Your task to perform on an android device: install app "Gboard" Image 0: 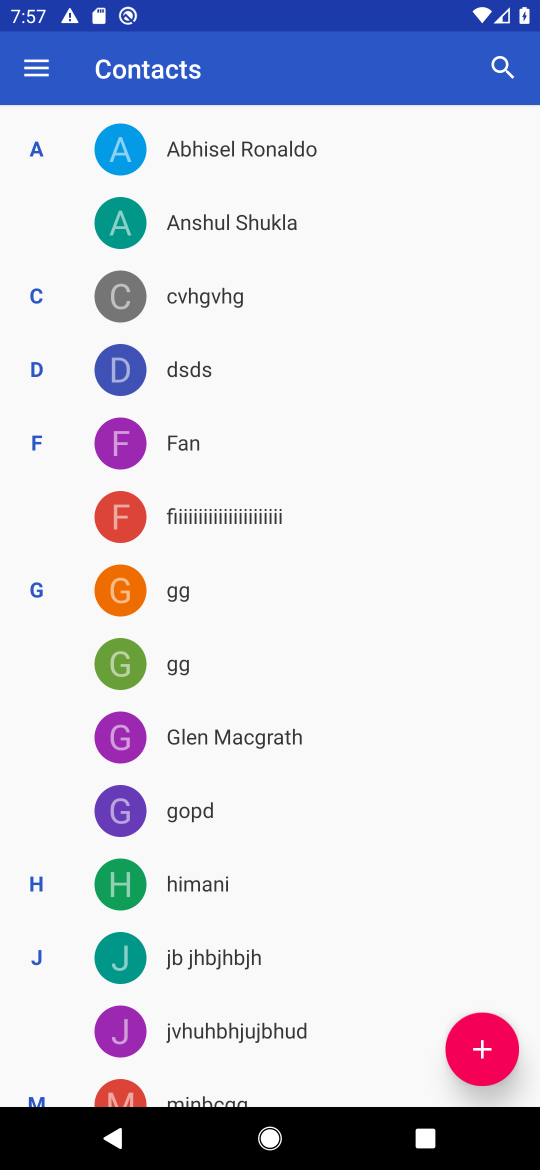
Step 0: press home button
Your task to perform on an android device: install app "Gboard" Image 1: 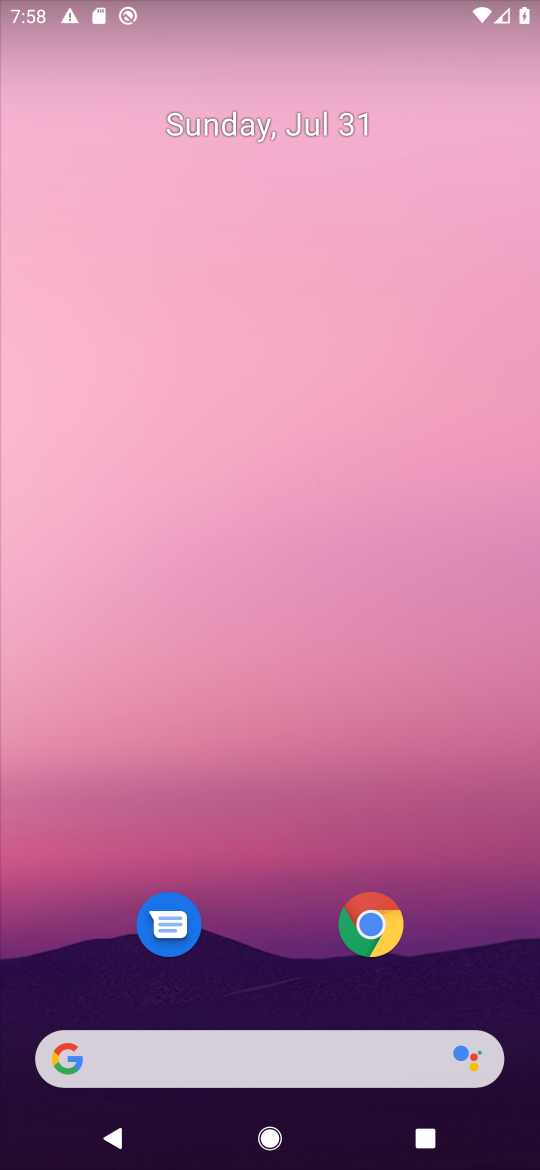
Step 1: drag from (312, 738) to (345, 417)
Your task to perform on an android device: install app "Gboard" Image 2: 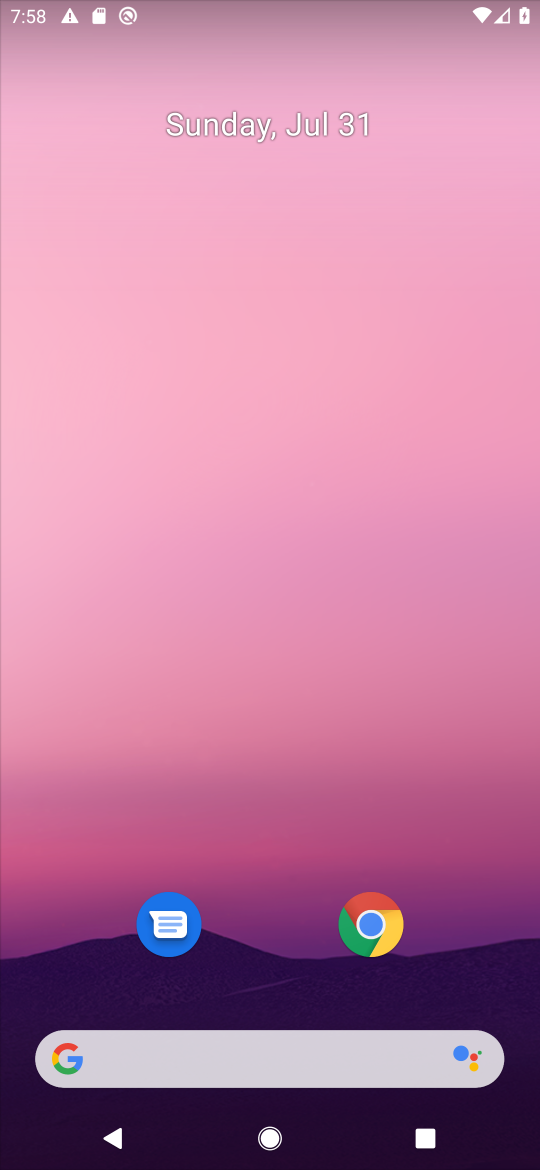
Step 2: drag from (277, 542) to (277, 249)
Your task to perform on an android device: install app "Gboard" Image 3: 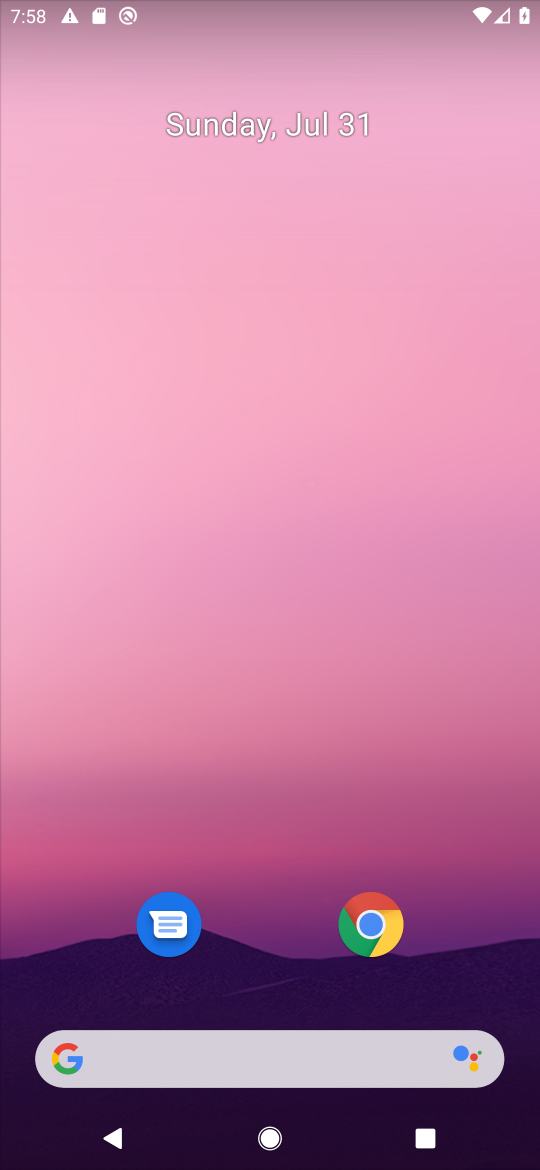
Step 3: drag from (300, 878) to (403, 28)
Your task to perform on an android device: install app "Gboard" Image 4: 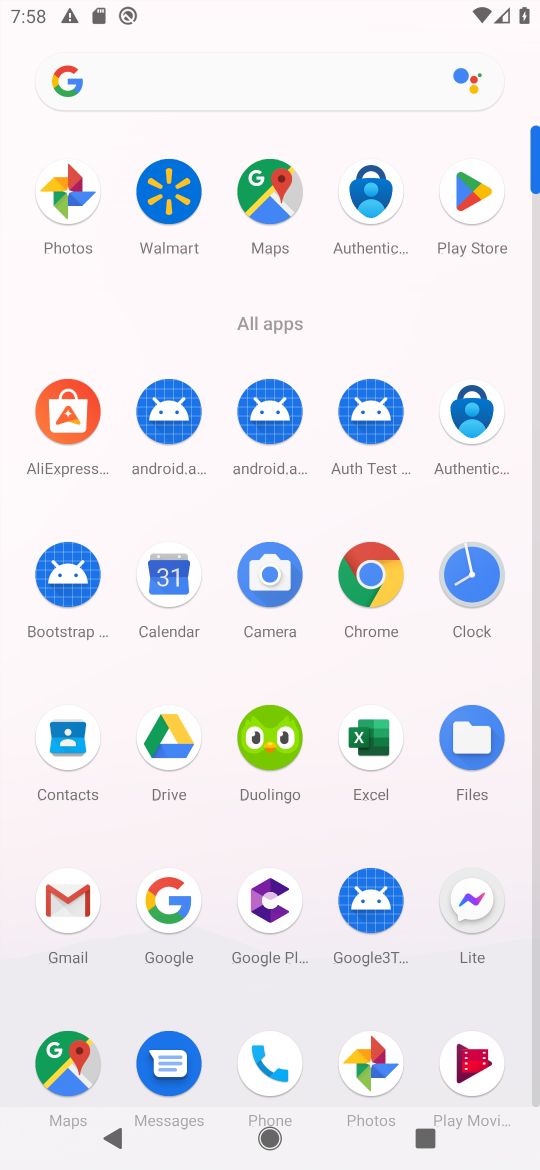
Step 4: click (473, 177)
Your task to perform on an android device: install app "Gboard" Image 5: 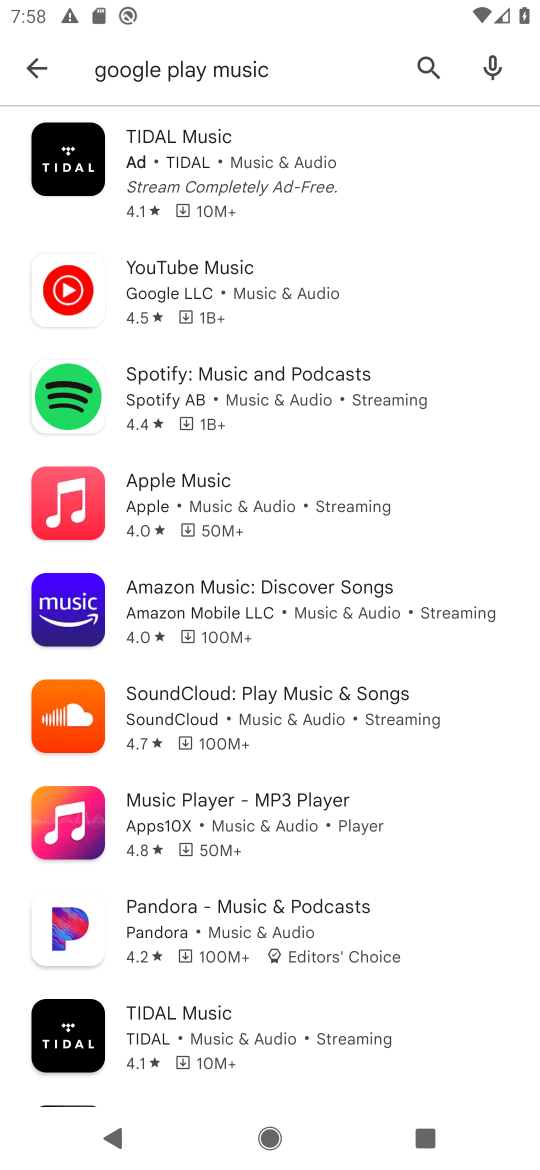
Step 5: click (418, 68)
Your task to perform on an android device: install app "Gboard" Image 6: 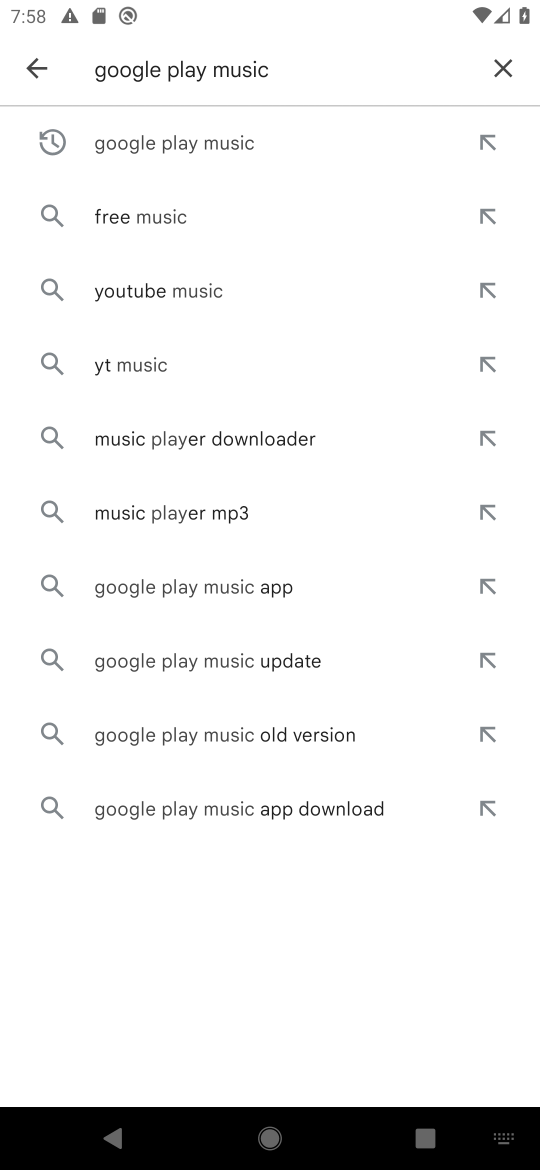
Step 6: click (509, 57)
Your task to perform on an android device: install app "Gboard" Image 7: 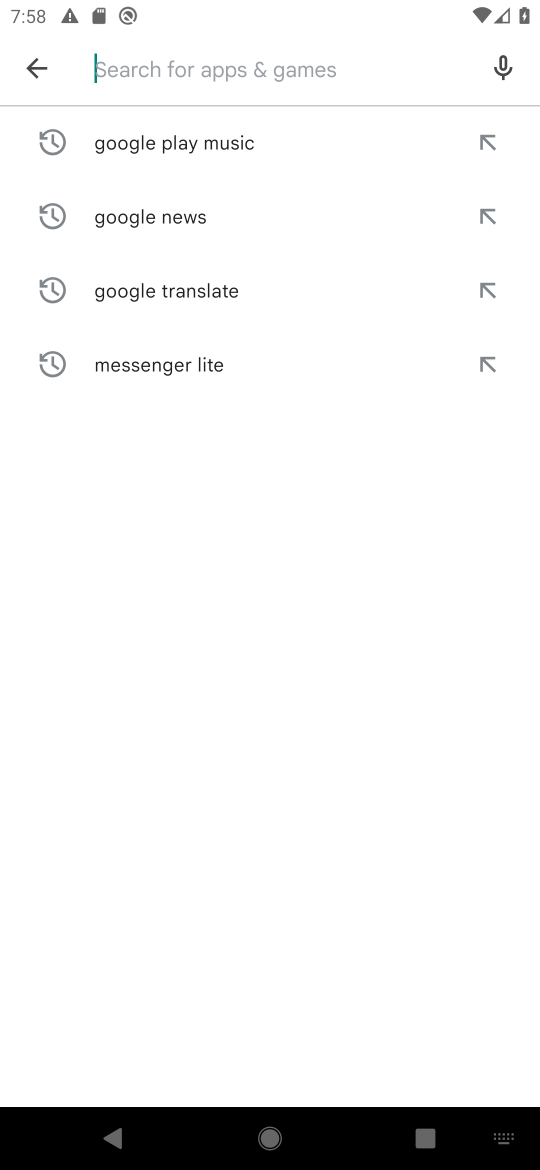
Step 7: type "Gboard"
Your task to perform on an android device: install app "Gboard" Image 8: 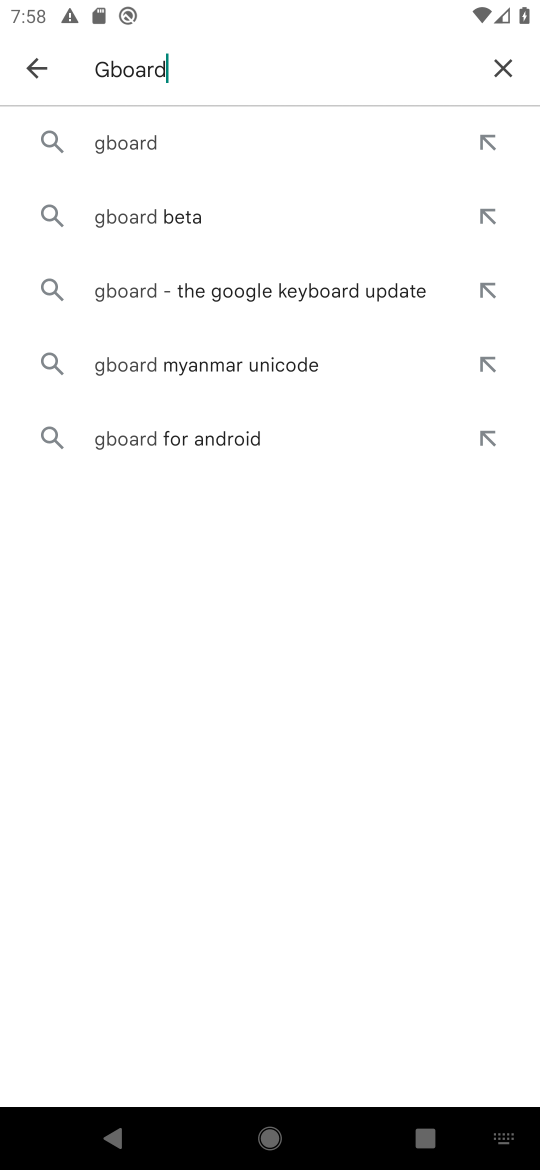
Step 8: click (123, 144)
Your task to perform on an android device: install app "Gboard" Image 9: 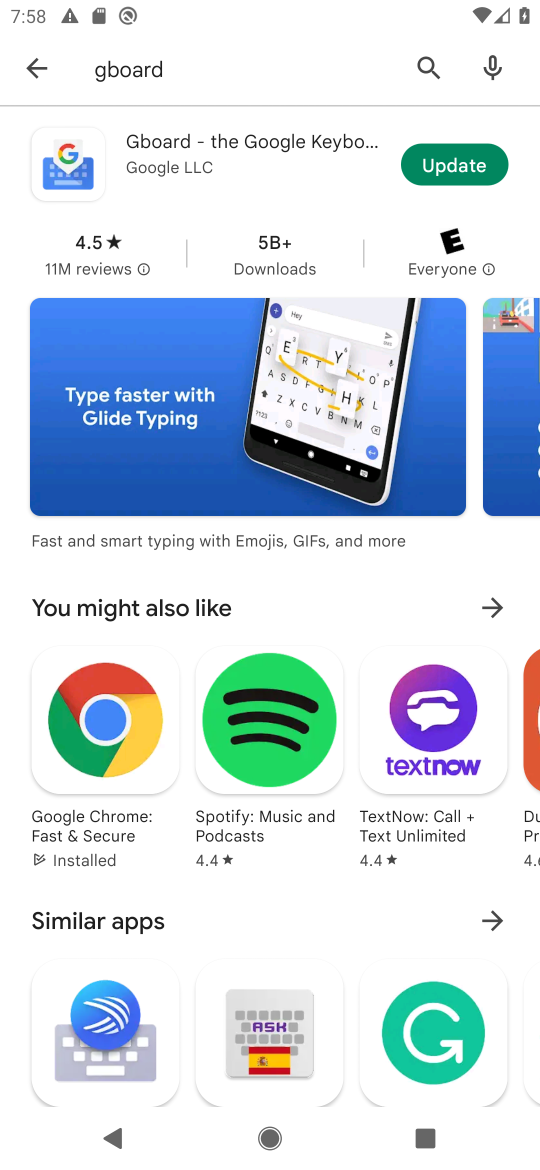
Step 9: task complete